Your task to perform on an android device: check google app version Image 0: 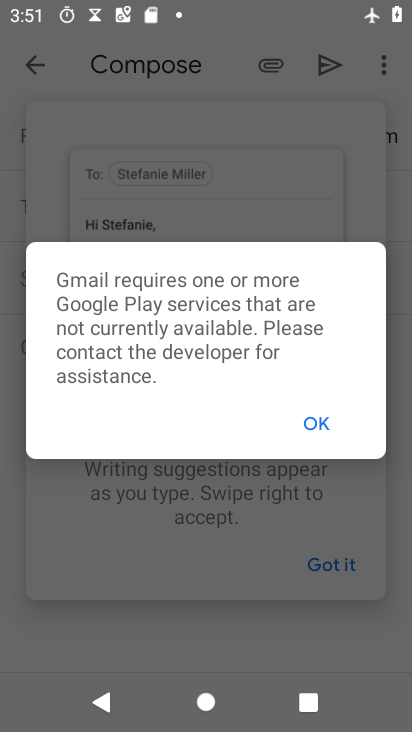
Step 0: press home button
Your task to perform on an android device: check google app version Image 1: 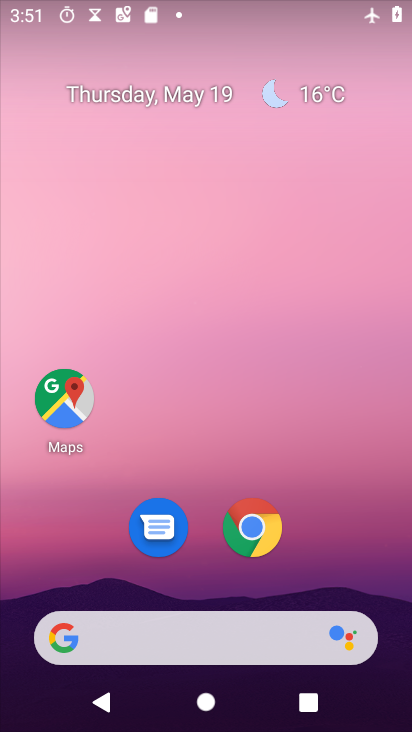
Step 1: drag from (340, 555) to (209, 77)
Your task to perform on an android device: check google app version Image 2: 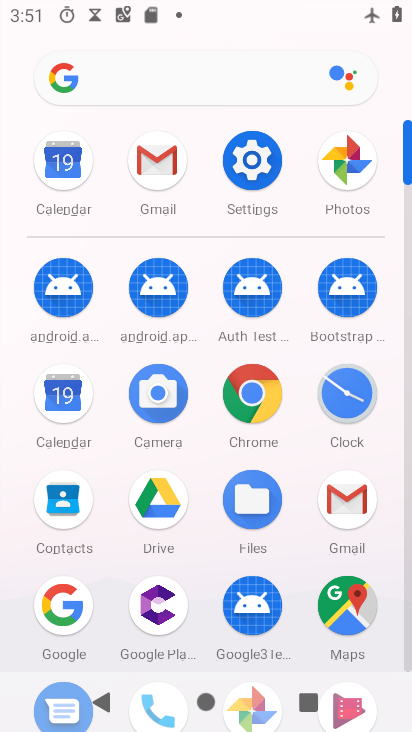
Step 2: click (58, 595)
Your task to perform on an android device: check google app version Image 3: 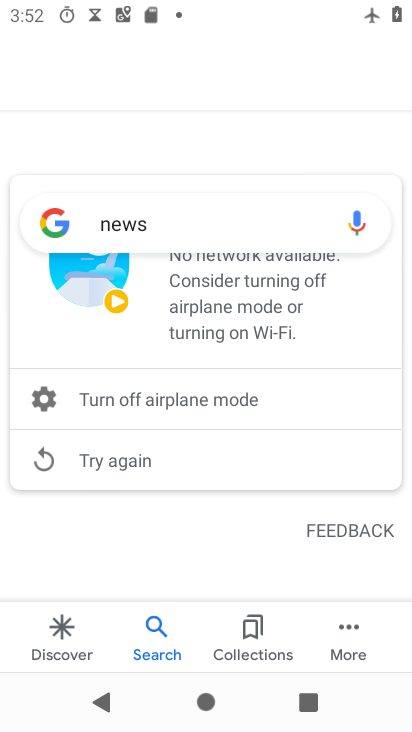
Step 3: click (337, 631)
Your task to perform on an android device: check google app version Image 4: 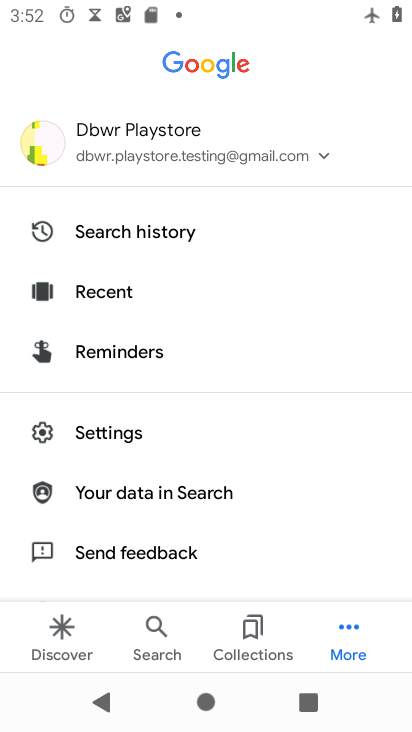
Step 4: click (164, 428)
Your task to perform on an android device: check google app version Image 5: 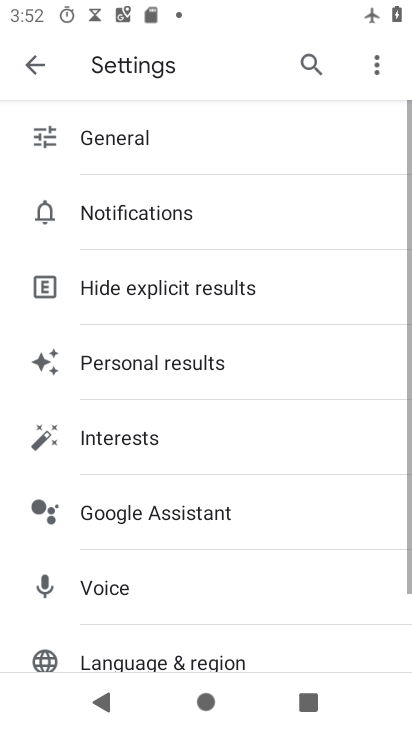
Step 5: drag from (248, 561) to (208, 142)
Your task to perform on an android device: check google app version Image 6: 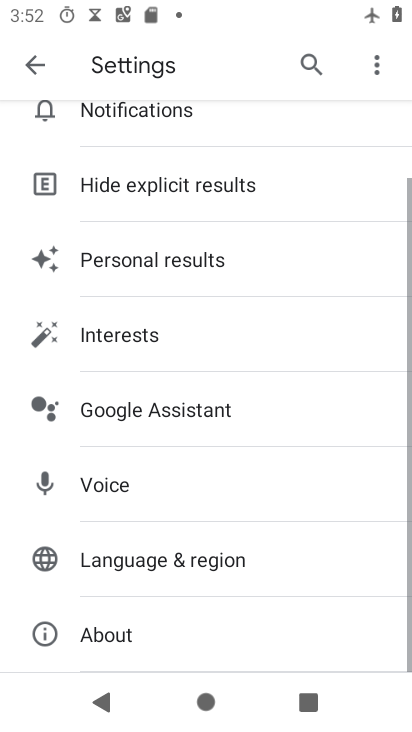
Step 6: click (188, 631)
Your task to perform on an android device: check google app version Image 7: 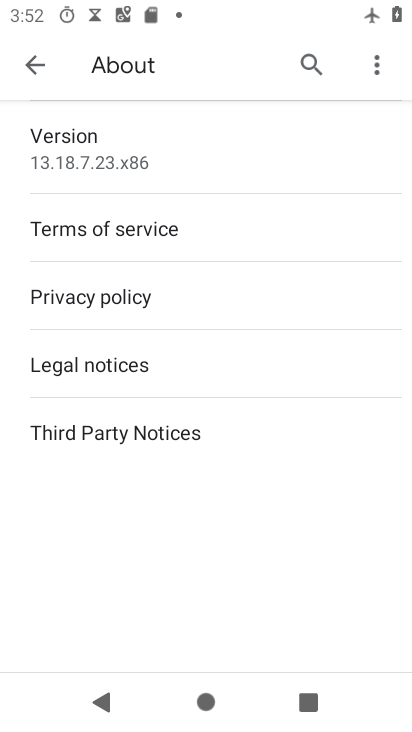
Step 7: task complete